Your task to perform on an android device: Open Google Maps Image 0: 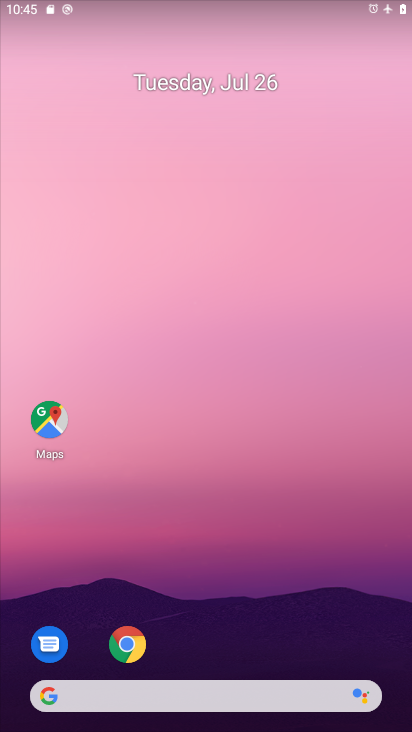
Step 0: click (48, 420)
Your task to perform on an android device: Open Google Maps Image 1: 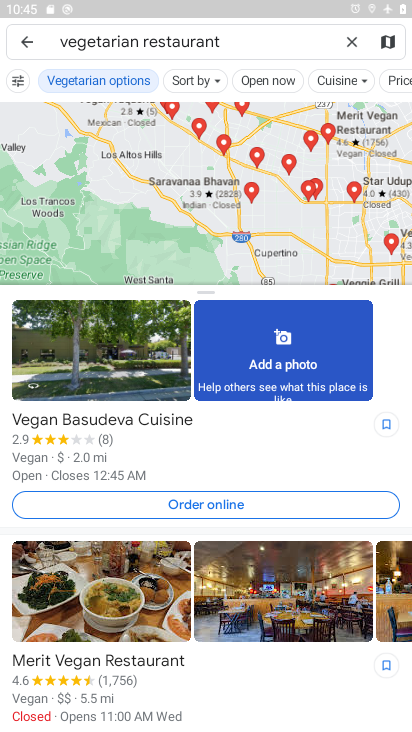
Step 1: click (29, 39)
Your task to perform on an android device: Open Google Maps Image 2: 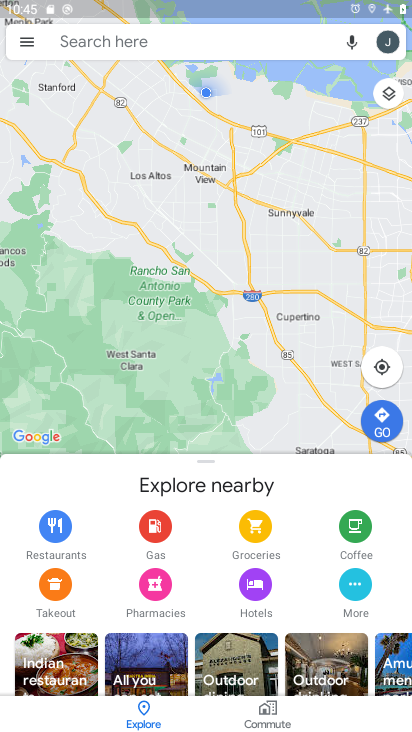
Step 2: task complete